Your task to perform on an android device: Toggle the flashlight Image 0: 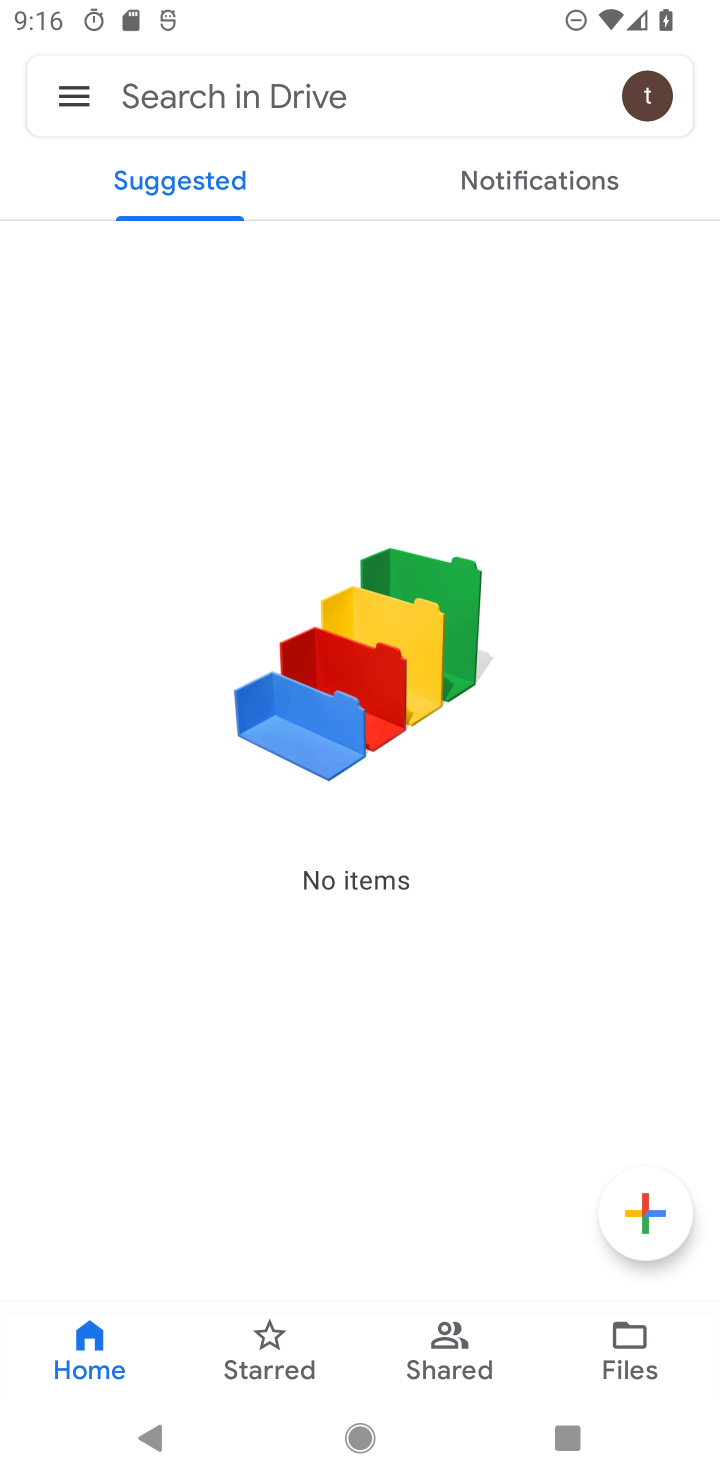
Step 0: drag from (354, 12) to (202, 1473)
Your task to perform on an android device: Toggle the flashlight Image 1: 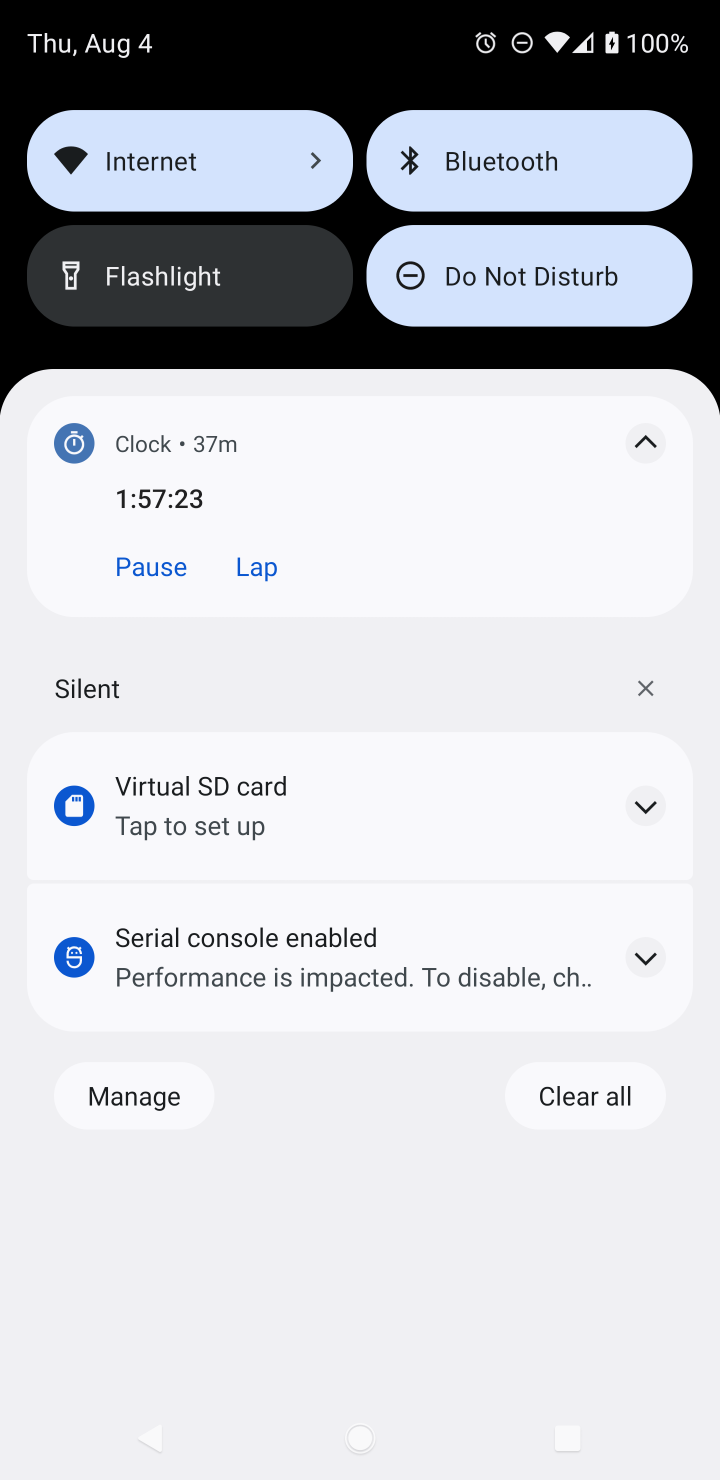
Step 1: click (199, 301)
Your task to perform on an android device: Toggle the flashlight Image 2: 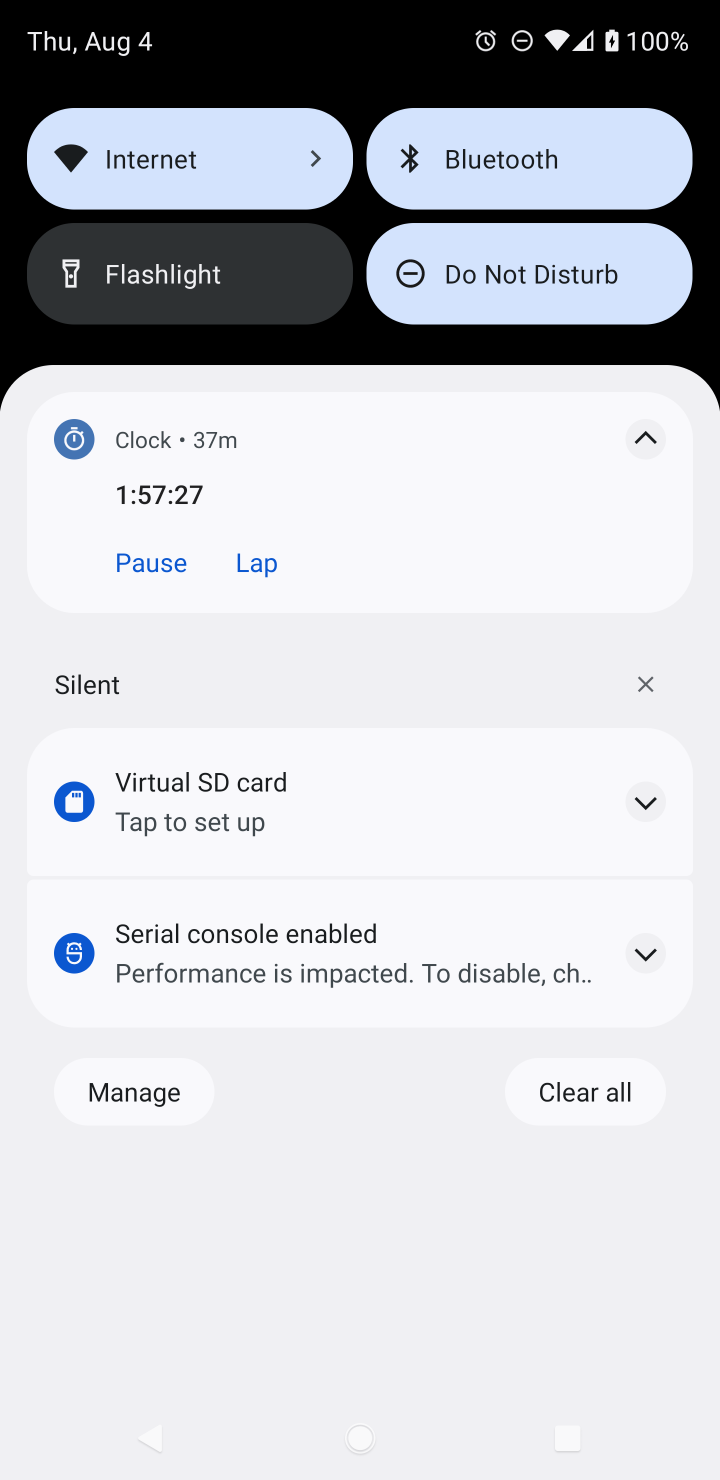
Step 2: click (197, 291)
Your task to perform on an android device: Toggle the flashlight Image 3: 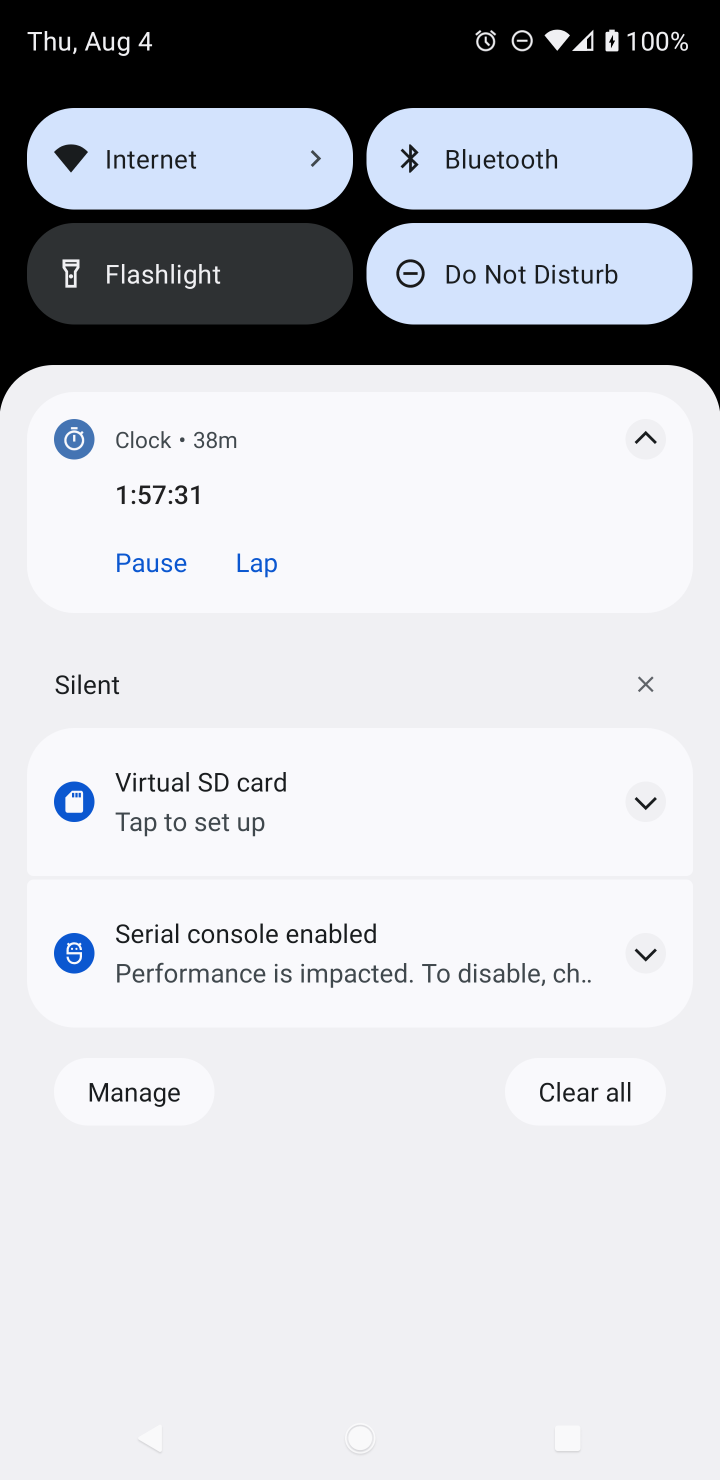
Step 3: task complete